Your task to perform on an android device: delete location history Image 0: 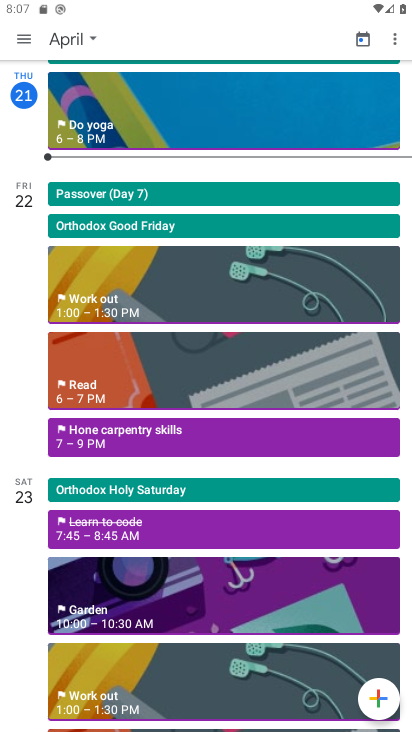
Step 0: press home button
Your task to perform on an android device: delete location history Image 1: 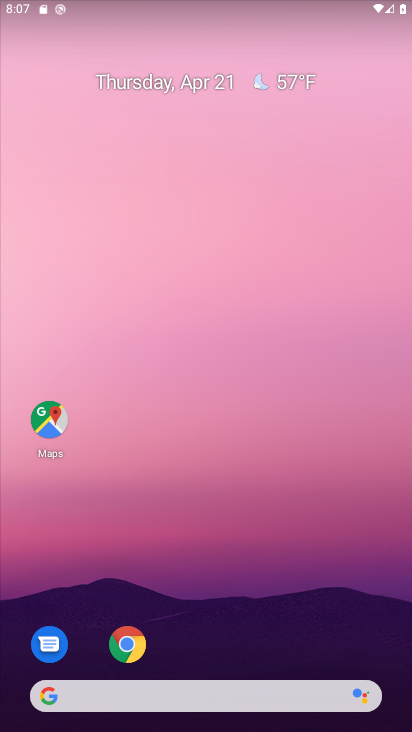
Step 1: drag from (219, 631) to (269, 48)
Your task to perform on an android device: delete location history Image 2: 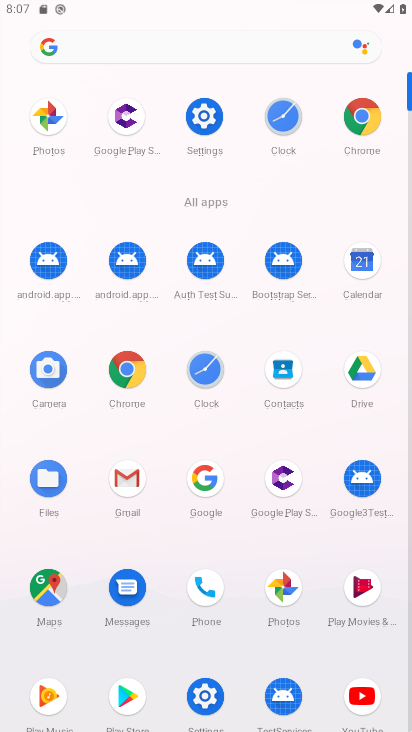
Step 2: click (208, 124)
Your task to perform on an android device: delete location history Image 3: 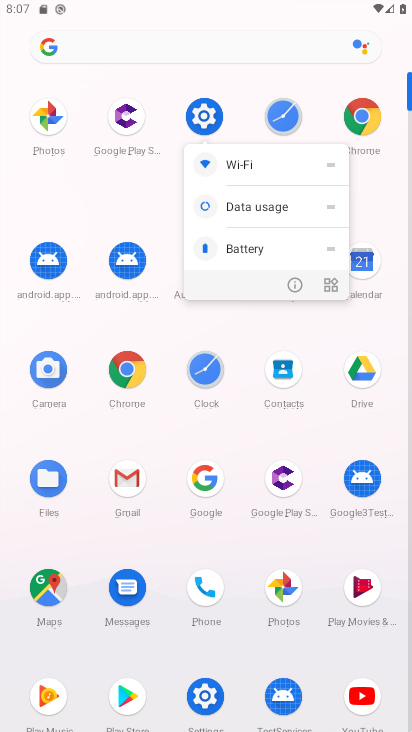
Step 3: click (201, 112)
Your task to perform on an android device: delete location history Image 4: 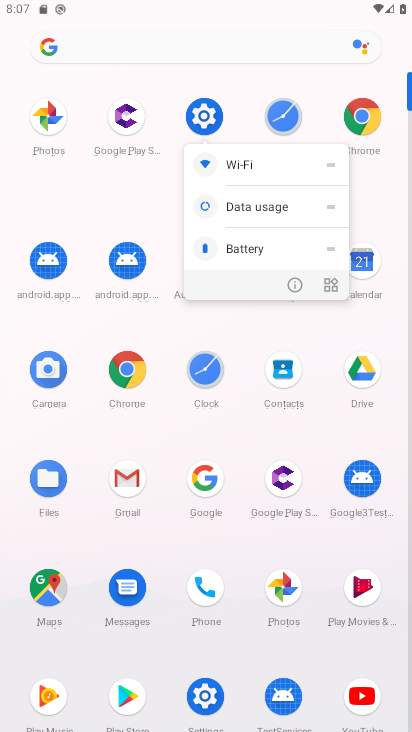
Step 4: click (201, 112)
Your task to perform on an android device: delete location history Image 5: 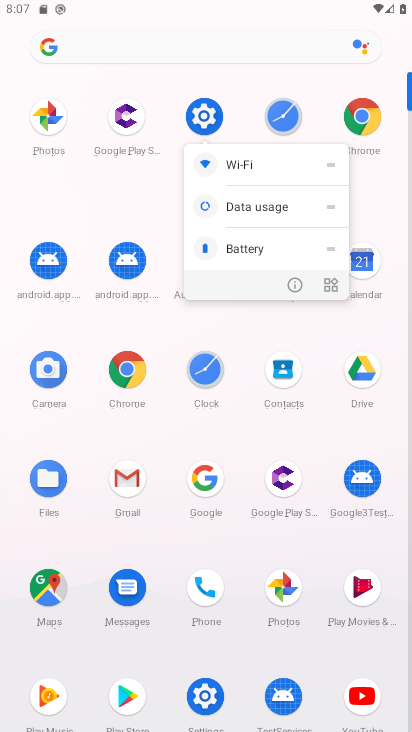
Step 5: click (199, 112)
Your task to perform on an android device: delete location history Image 6: 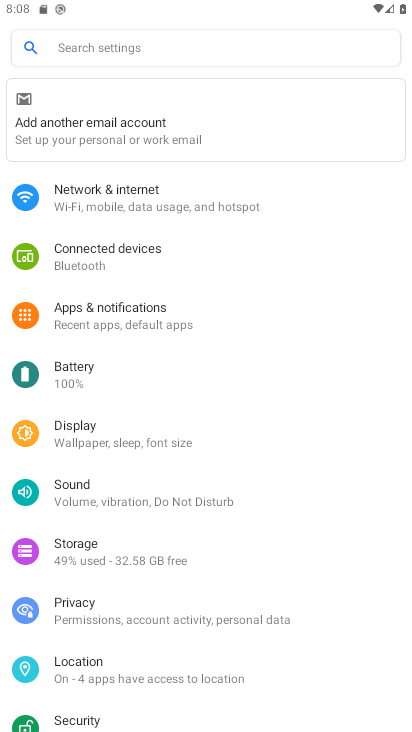
Step 6: click (89, 663)
Your task to perform on an android device: delete location history Image 7: 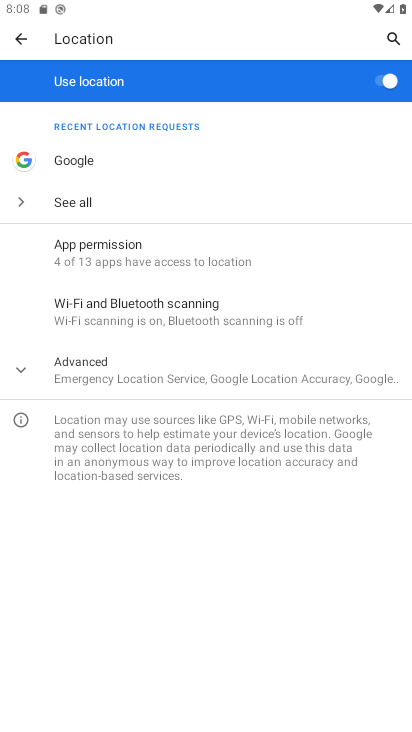
Step 7: click (90, 362)
Your task to perform on an android device: delete location history Image 8: 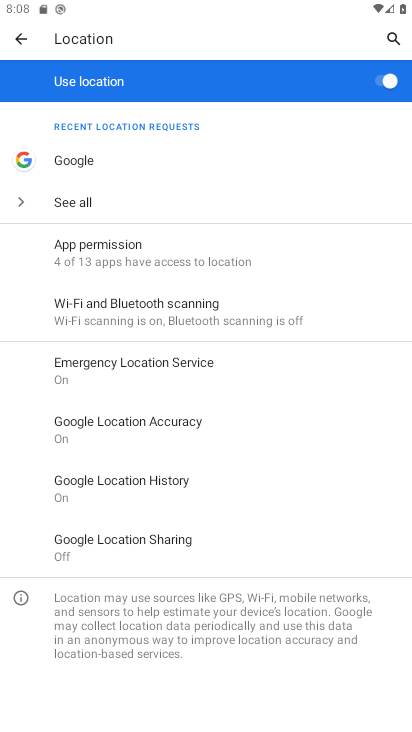
Step 8: click (132, 475)
Your task to perform on an android device: delete location history Image 9: 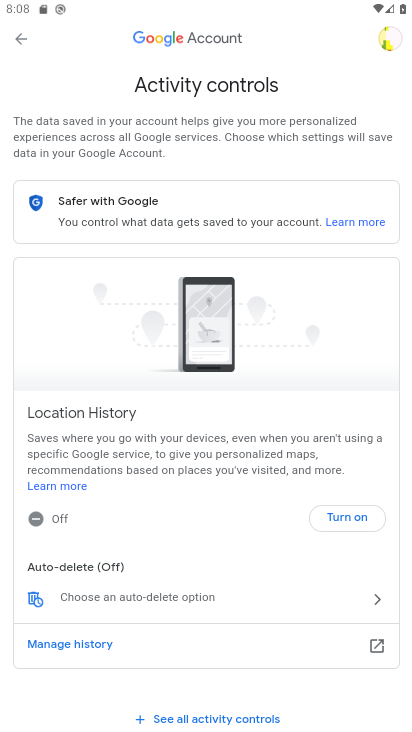
Step 9: click (32, 594)
Your task to perform on an android device: delete location history Image 10: 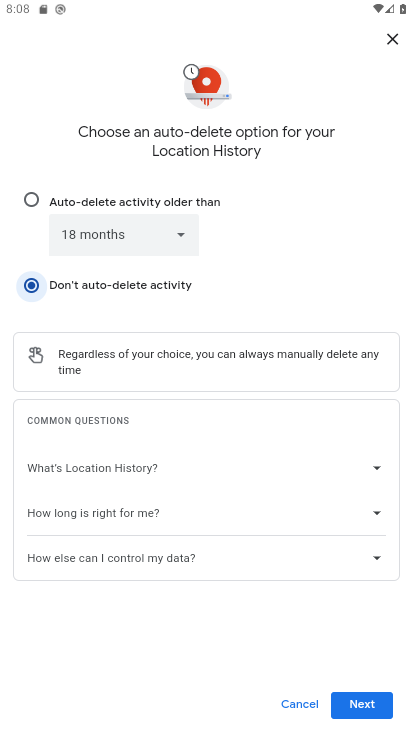
Step 10: click (362, 702)
Your task to perform on an android device: delete location history Image 11: 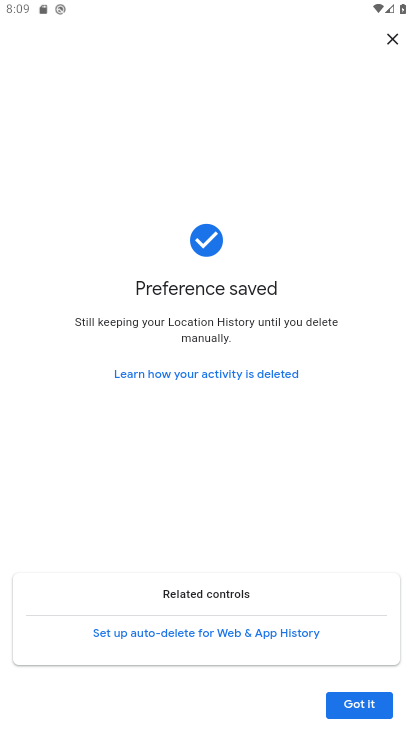
Step 11: click (362, 702)
Your task to perform on an android device: delete location history Image 12: 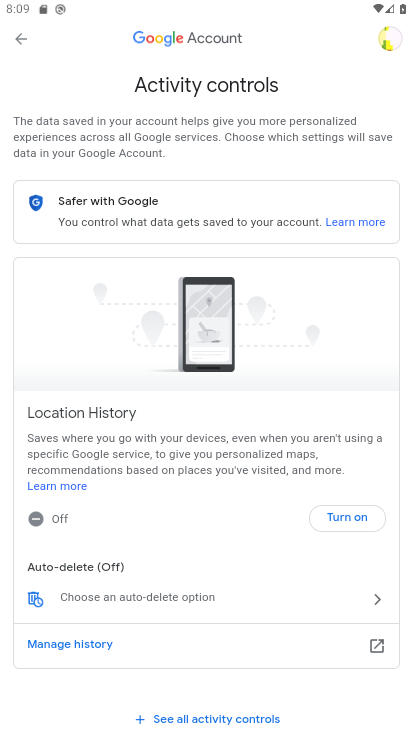
Step 12: task complete